Your task to perform on an android device: Go to Amazon Image 0: 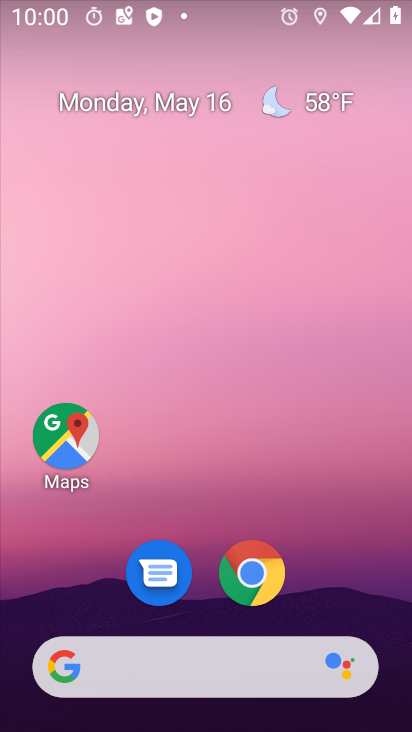
Step 0: drag from (393, 717) to (6, 64)
Your task to perform on an android device: Go to Amazon Image 1: 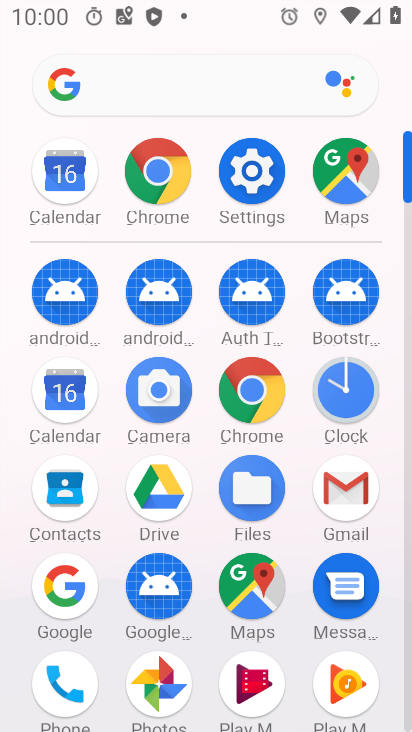
Step 1: click (146, 167)
Your task to perform on an android device: Go to Amazon Image 2: 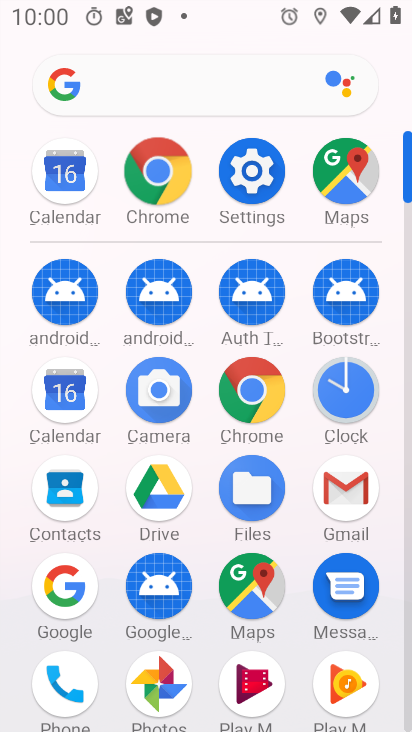
Step 2: click (146, 167)
Your task to perform on an android device: Go to Amazon Image 3: 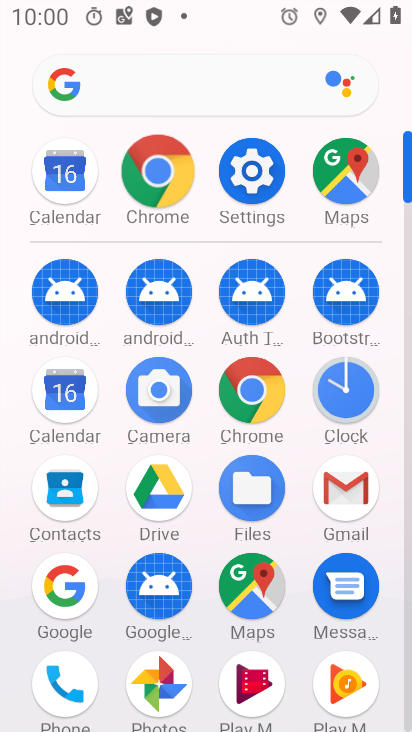
Step 3: click (147, 168)
Your task to perform on an android device: Go to Amazon Image 4: 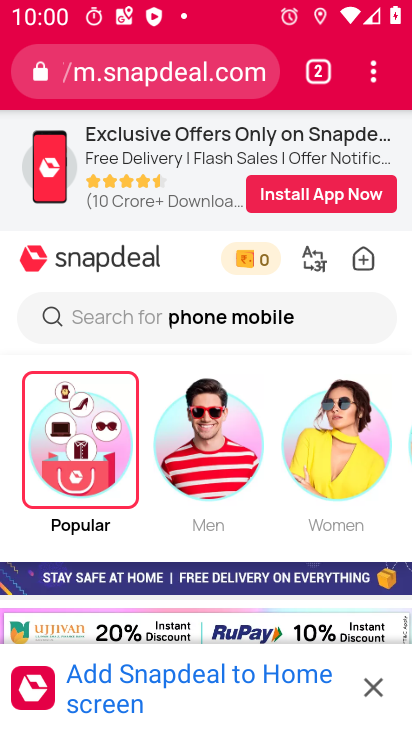
Step 4: drag from (368, 62) to (106, 126)
Your task to perform on an android device: Go to Amazon Image 5: 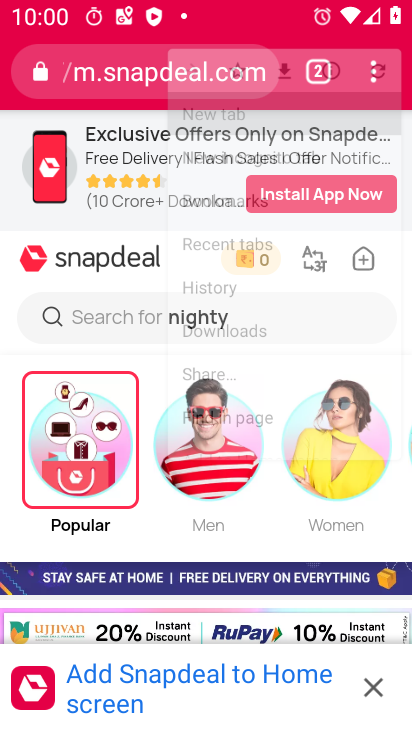
Step 5: click (107, 126)
Your task to perform on an android device: Go to Amazon Image 6: 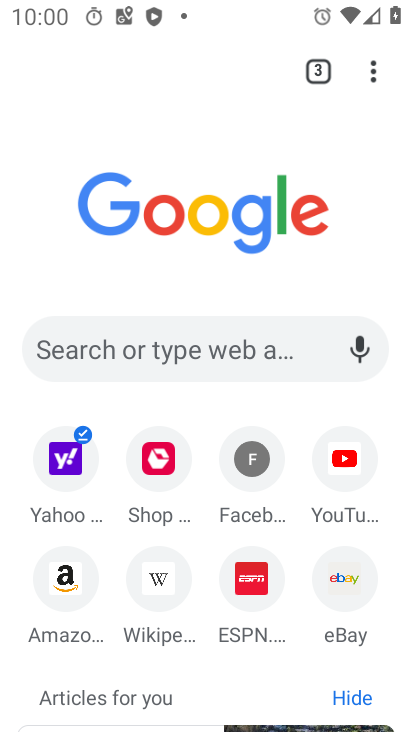
Step 6: click (61, 585)
Your task to perform on an android device: Go to Amazon Image 7: 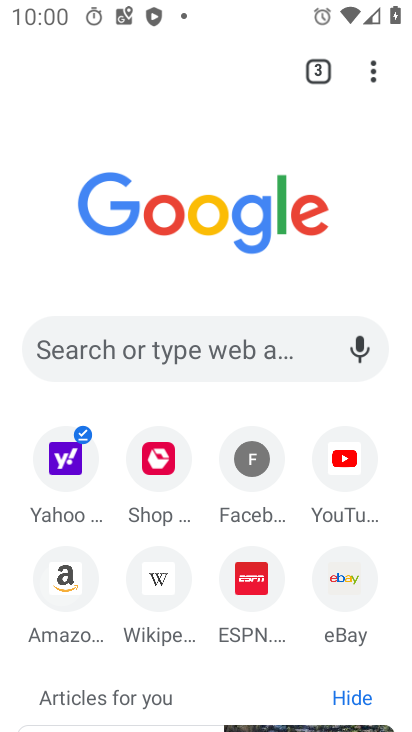
Step 7: click (61, 584)
Your task to perform on an android device: Go to Amazon Image 8: 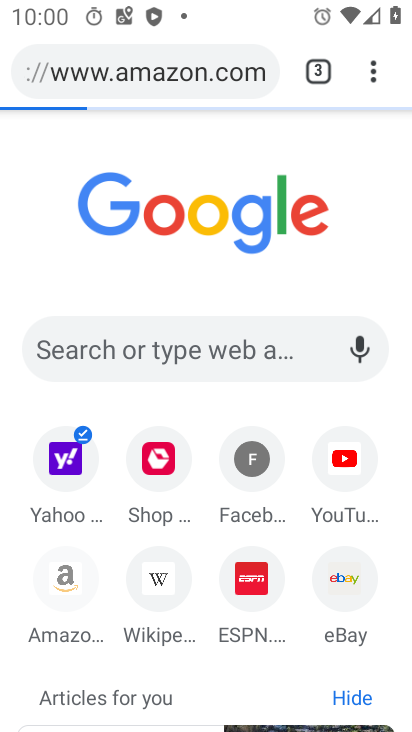
Step 8: click (61, 574)
Your task to perform on an android device: Go to Amazon Image 9: 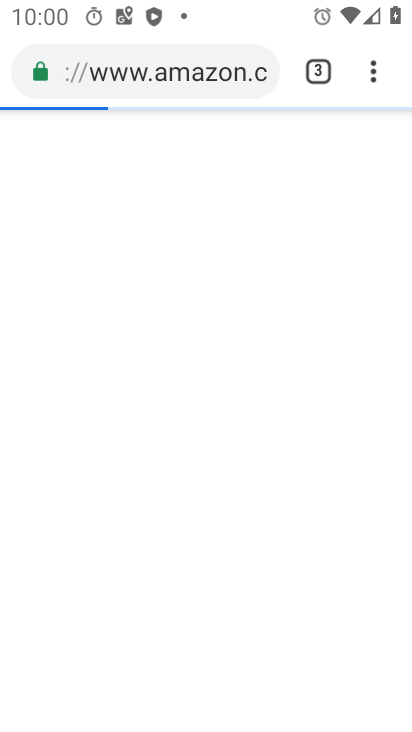
Step 9: click (56, 561)
Your task to perform on an android device: Go to Amazon Image 10: 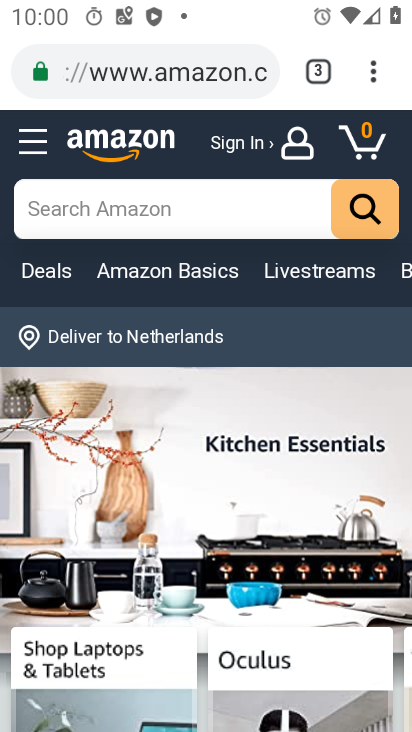
Step 10: task complete